Your task to perform on an android device: toggle notifications settings in the gmail app Image 0: 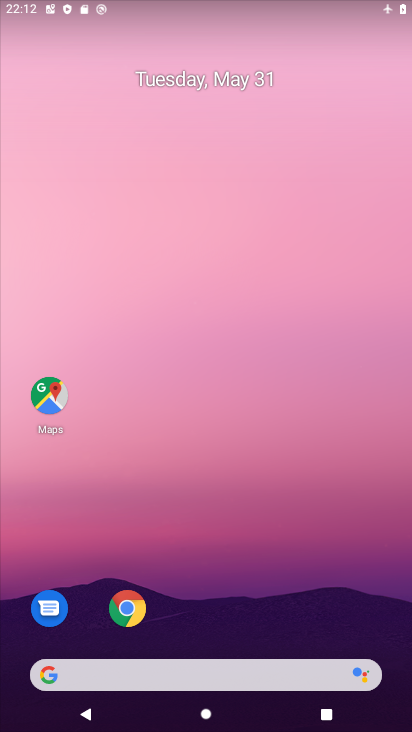
Step 0: drag from (190, 641) to (251, 1)
Your task to perform on an android device: toggle notifications settings in the gmail app Image 1: 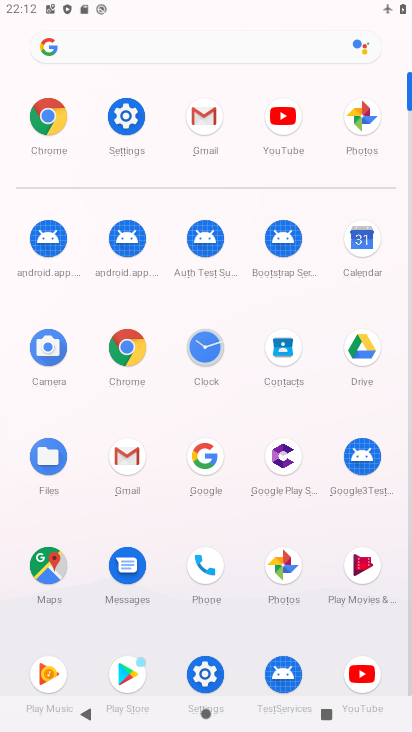
Step 1: click (193, 116)
Your task to perform on an android device: toggle notifications settings in the gmail app Image 2: 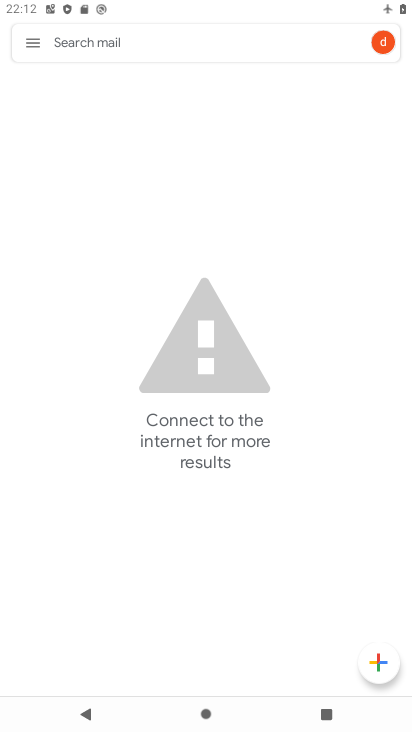
Step 2: click (35, 39)
Your task to perform on an android device: toggle notifications settings in the gmail app Image 3: 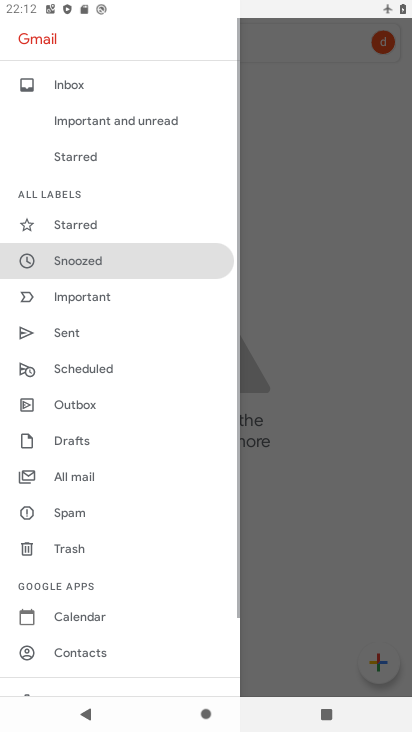
Step 3: drag from (105, 653) to (63, 132)
Your task to perform on an android device: toggle notifications settings in the gmail app Image 4: 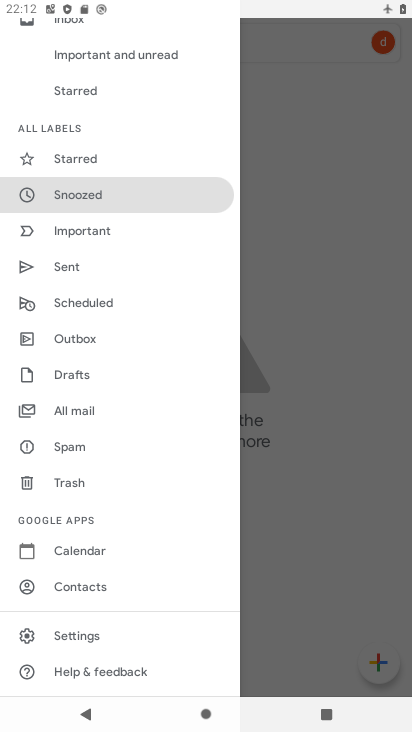
Step 4: click (105, 643)
Your task to perform on an android device: toggle notifications settings in the gmail app Image 5: 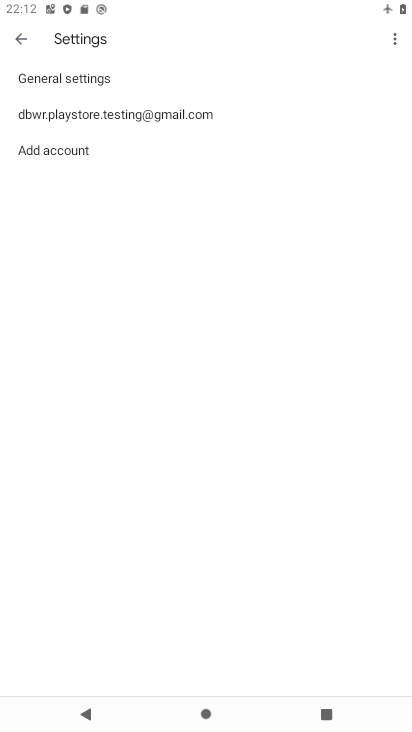
Step 5: click (75, 76)
Your task to perform on an android device: toggle notifications settings in the gmail app Image 6: 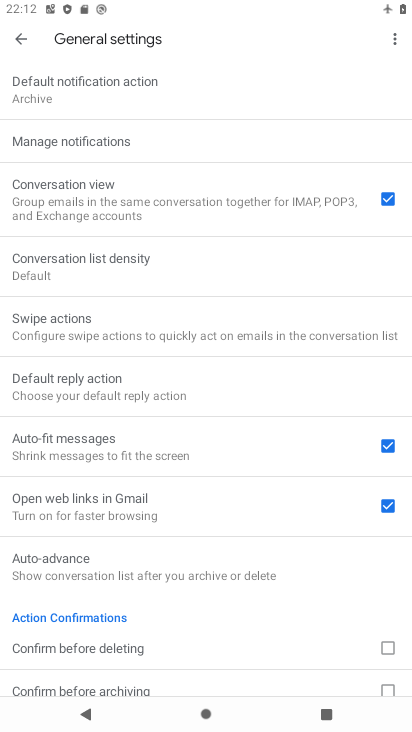
Step 6: click (89, 130)
Your task to perform on an android device: toggle notifications settings in the gmail app Image 7: 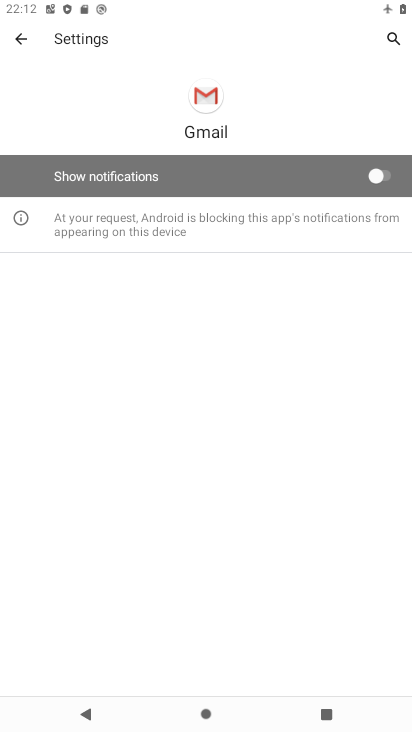
Step 7: click (371, 182)
Your task to perform on an android device: toggle notifications settings in the gmail app Image 8: 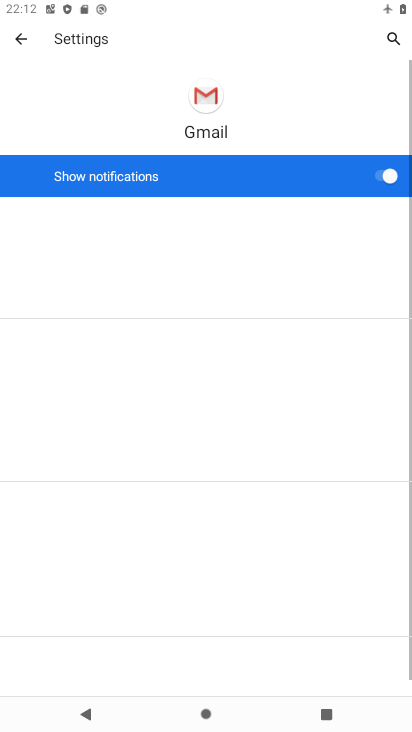
Step 8: task complete